Your task to perform on an android device: empty trash in google photos Image 0: 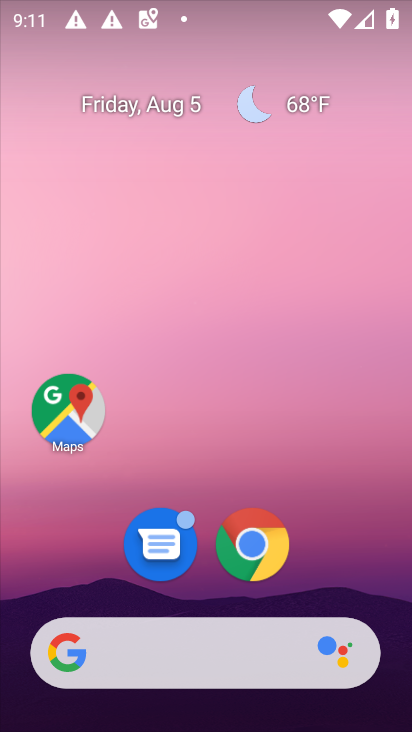
Step 0: drag from (295, 504) to (310, 66)
Your task to perform on an android device: empty trash in google photos Image 1: 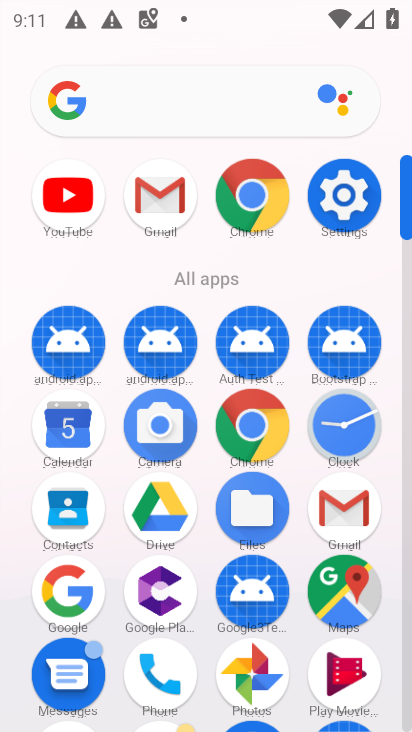
Step 1: click (257, 670)
Your task to perform on an android device: empty trash in google photos Image 2: 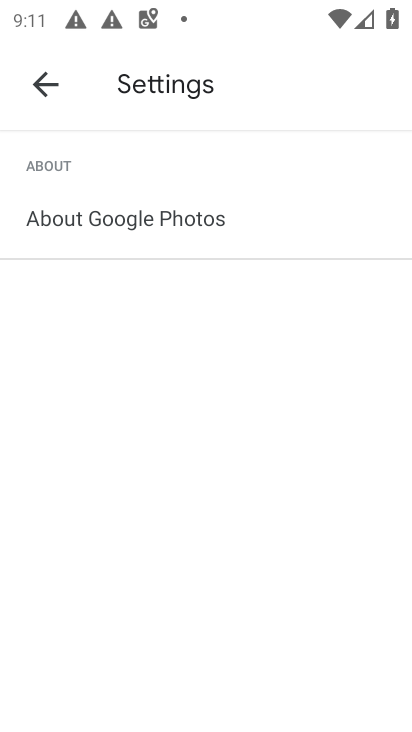
Step 2: click (48, 115)
Your task to perform on an android device: empty trash in google photos Image 3: 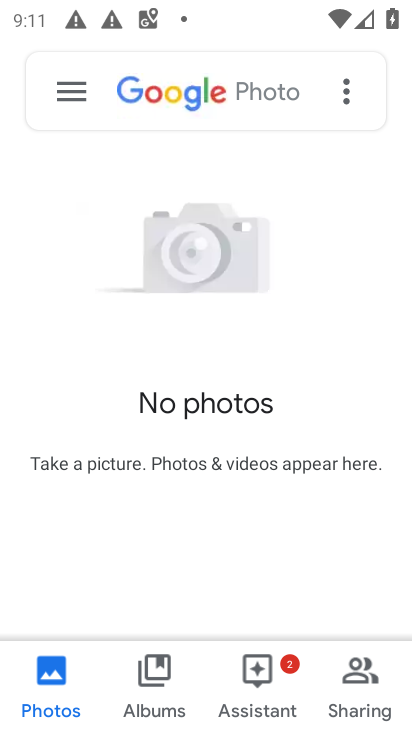
Step 3: click (45, 95)
Your task to perform on an android device: empty trash in google photos Image 4: 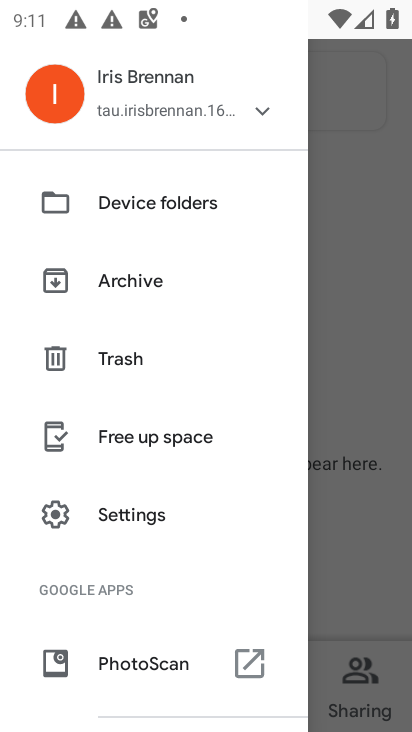
Step 4: click (80, 357)
Your task to perform on an android device: empty trash in google photos Image 5: 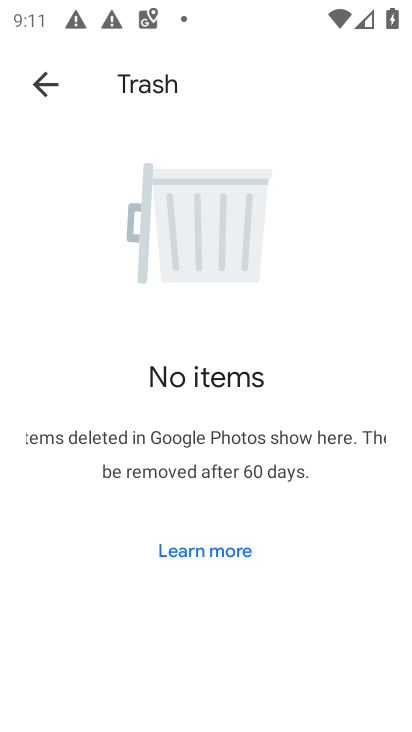
Step 5: task complete